Your task to perform on an android device: toggle location history Image 0: 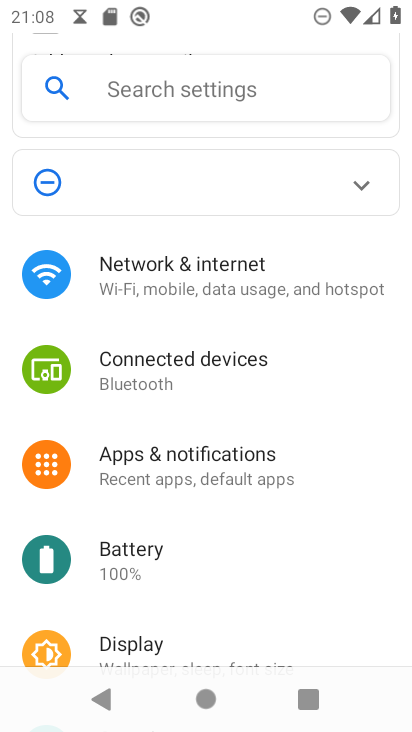
Step 0: press home button
Your task to perform on an android device: toggle location history Image 1: 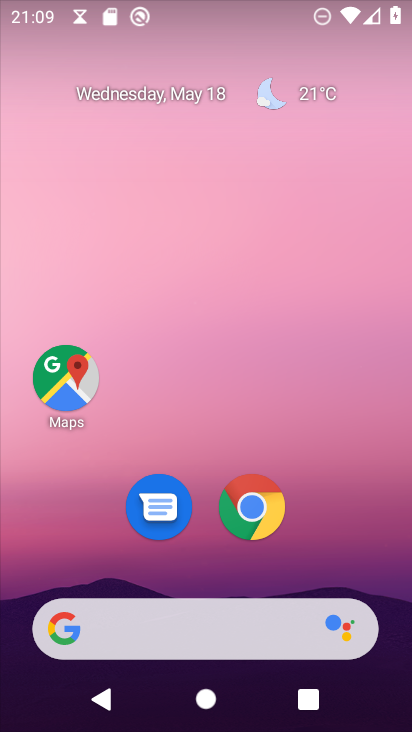
Step 1: click (61, 388)
Your task to perform on an android device: toggle location history Image 2: 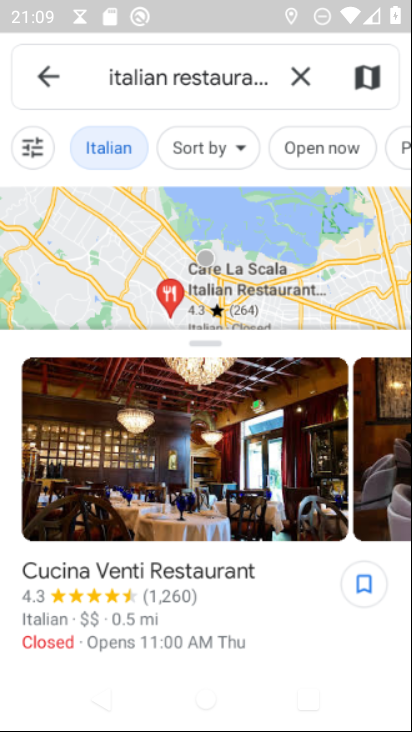
Step 2: click (54, 76)
Your task to perform on an android device: toggle location history Image 3: 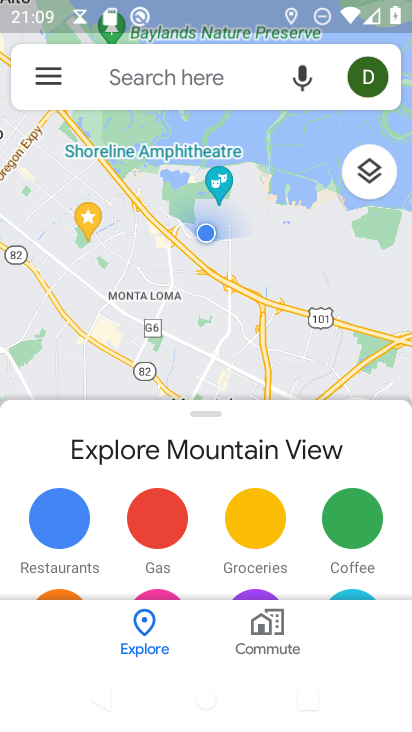
Step 3: click (54, 76)
Your task to perform on an android device: toggle location history Image 4: 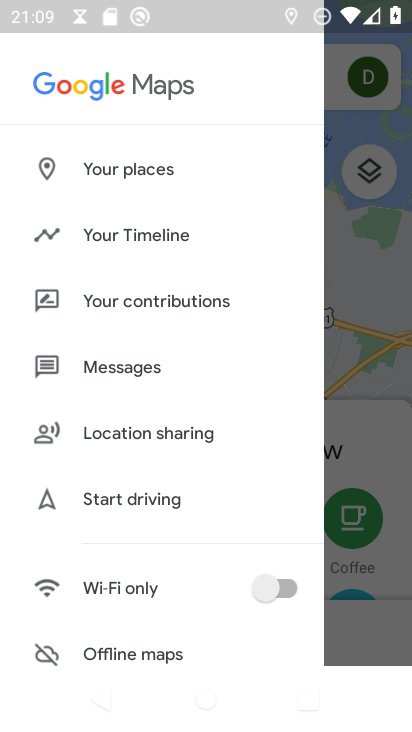
Step 4: click (172, 243)
Your task to perform on an android device: toggle location history Image 5: 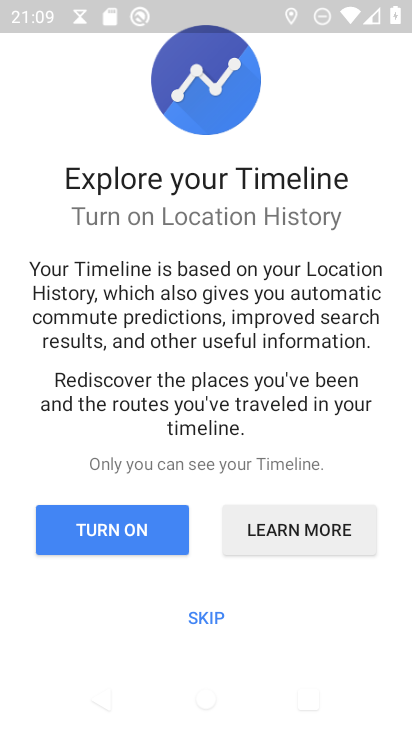
Step 5: click (208, 616)
Your task to perform on an android device: toggle location history Image 6: 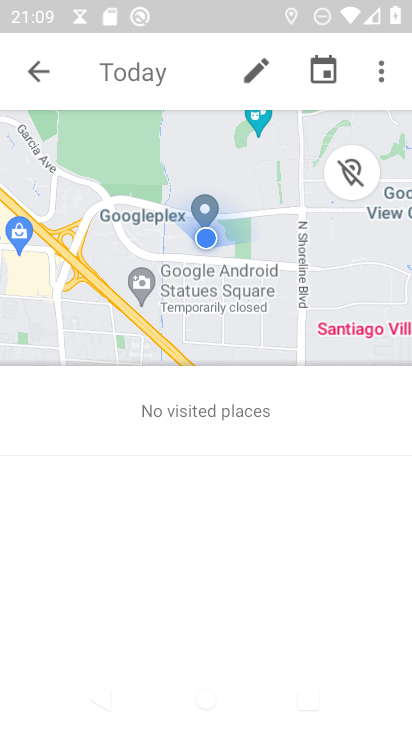
Step 6: click (384, 88)
Your task to perform on an android device: toggle location history Image 7: 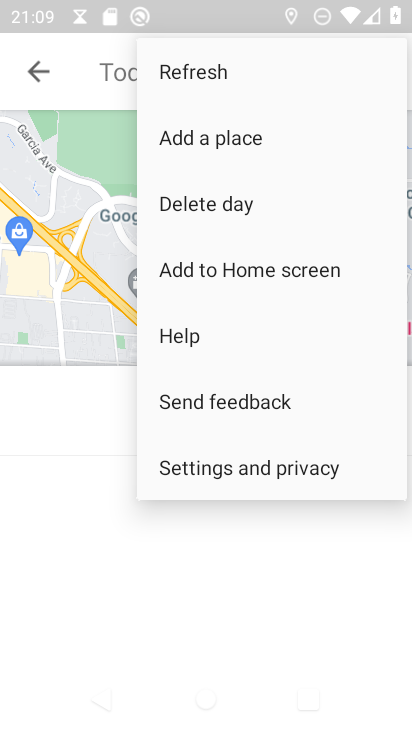
Step 7: click (271, 477)
Your task to perform on an android device: toggle location history Image 8: 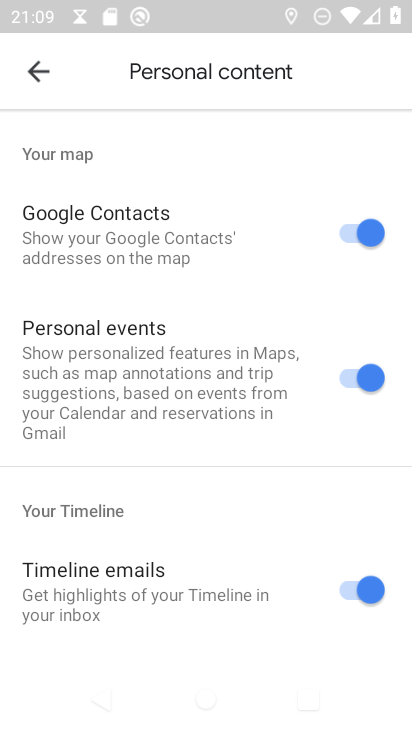
Step 8: drag from (256, 653) to (280, 250)
Your task to perform on an android device: toggle location history Image 9: 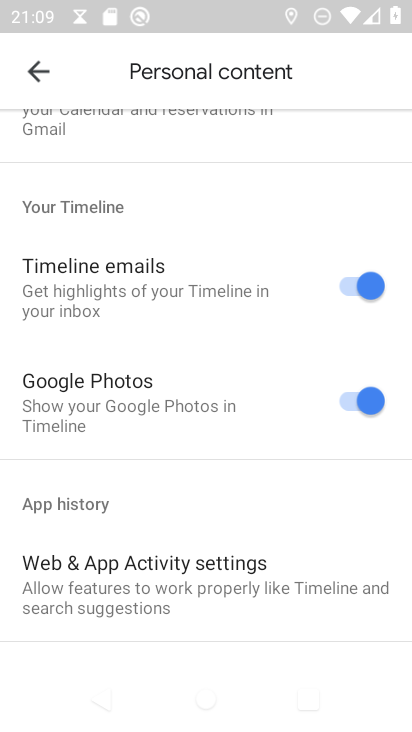
Step 9: drag from (266, 671) to (215, 138)
Your task to perform on an android device: toggle location history Image 10: 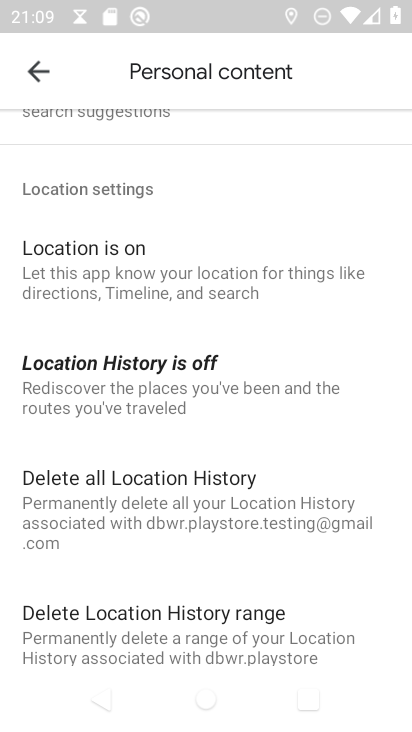
Step 10: click (215, 408)
Your task to perform on an android device: toggle location history Image 11: 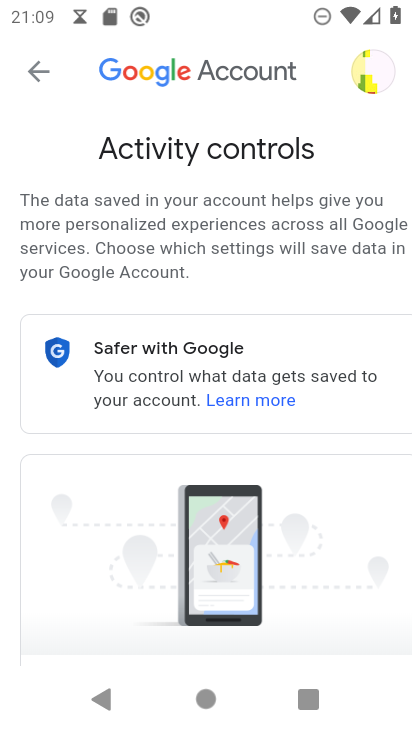
Step 11: drag from (293, 640) to (244, 146)
Your task to perform on an android device: toggle location history Image 12: 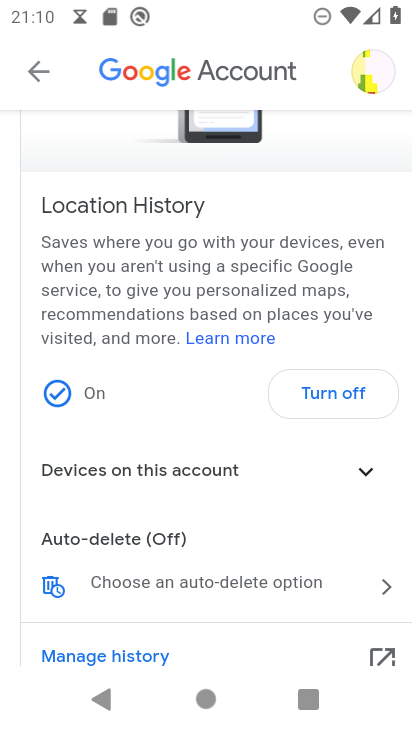
Step 12: click (83, 393)
Your task to perform on an android device: toggle location history Image 13: 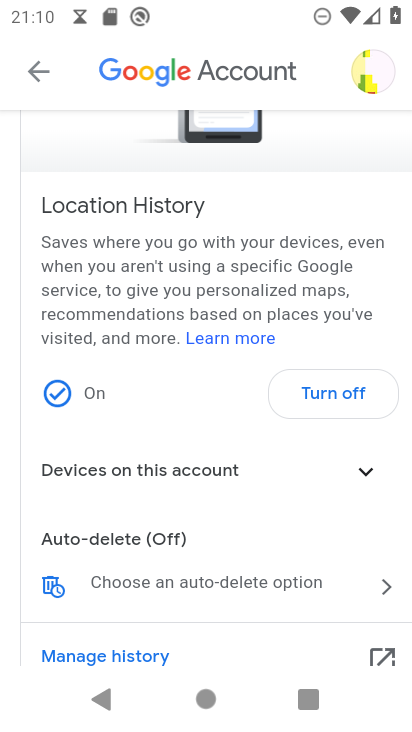
Step 13: click (56, 397)
Your task to perform on an android device: toggle location history Image 14: 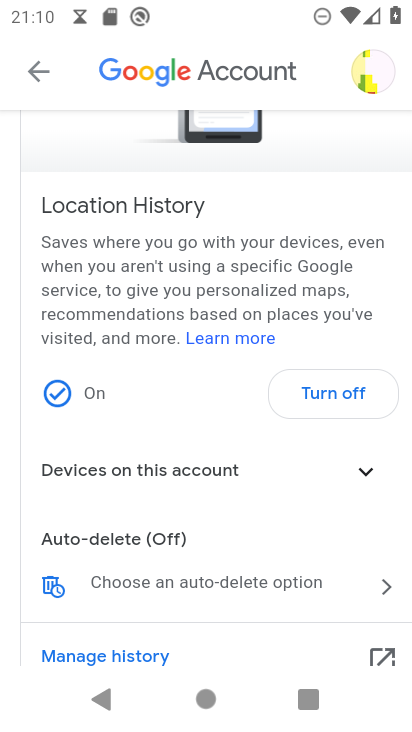
Step 14: task complete